Your task to perform on an android device: View the shopping cart on bestbuy. Add "logitech g pro" to the cart on bestbuy Image 0: 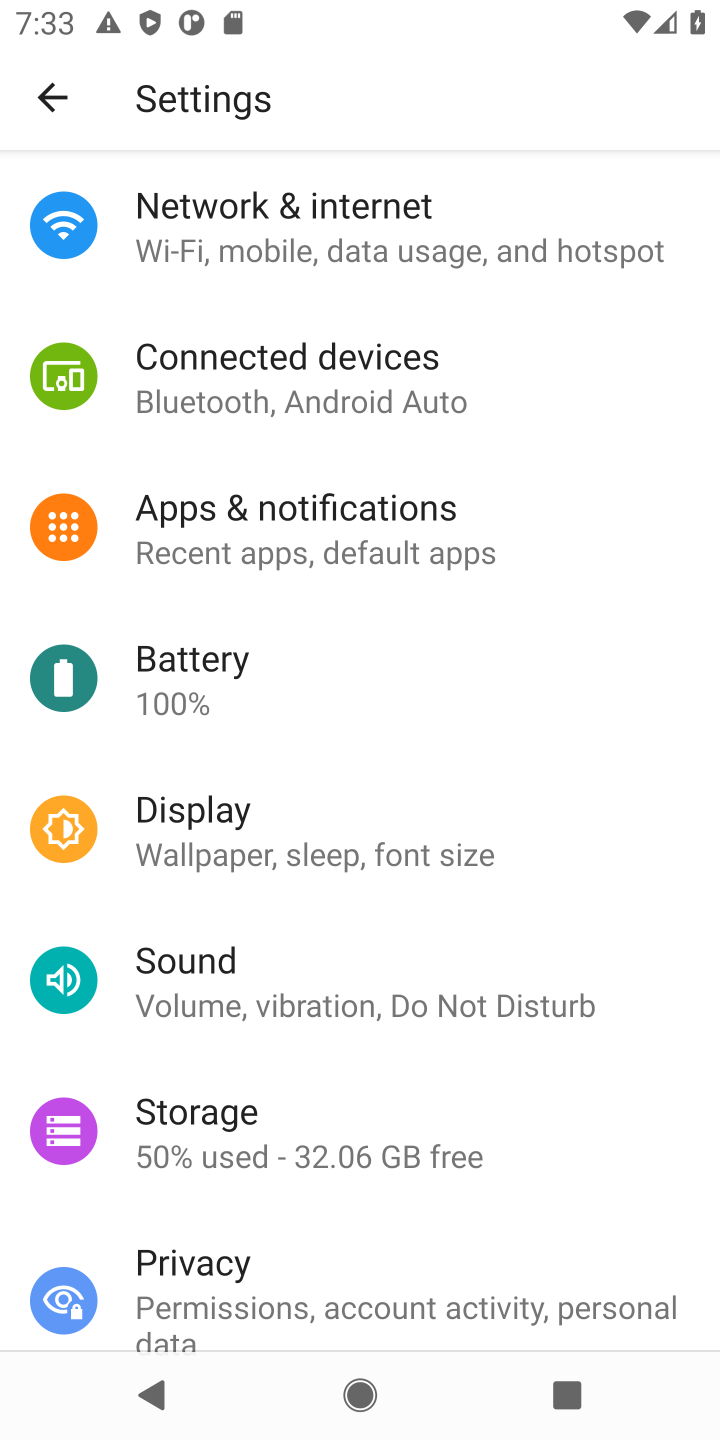
Step 0: press home button
Your task to perform on an android device: View the shopping cart on bestbuy. Add "logitech g pro" to the cart on bestbuy Image 1: 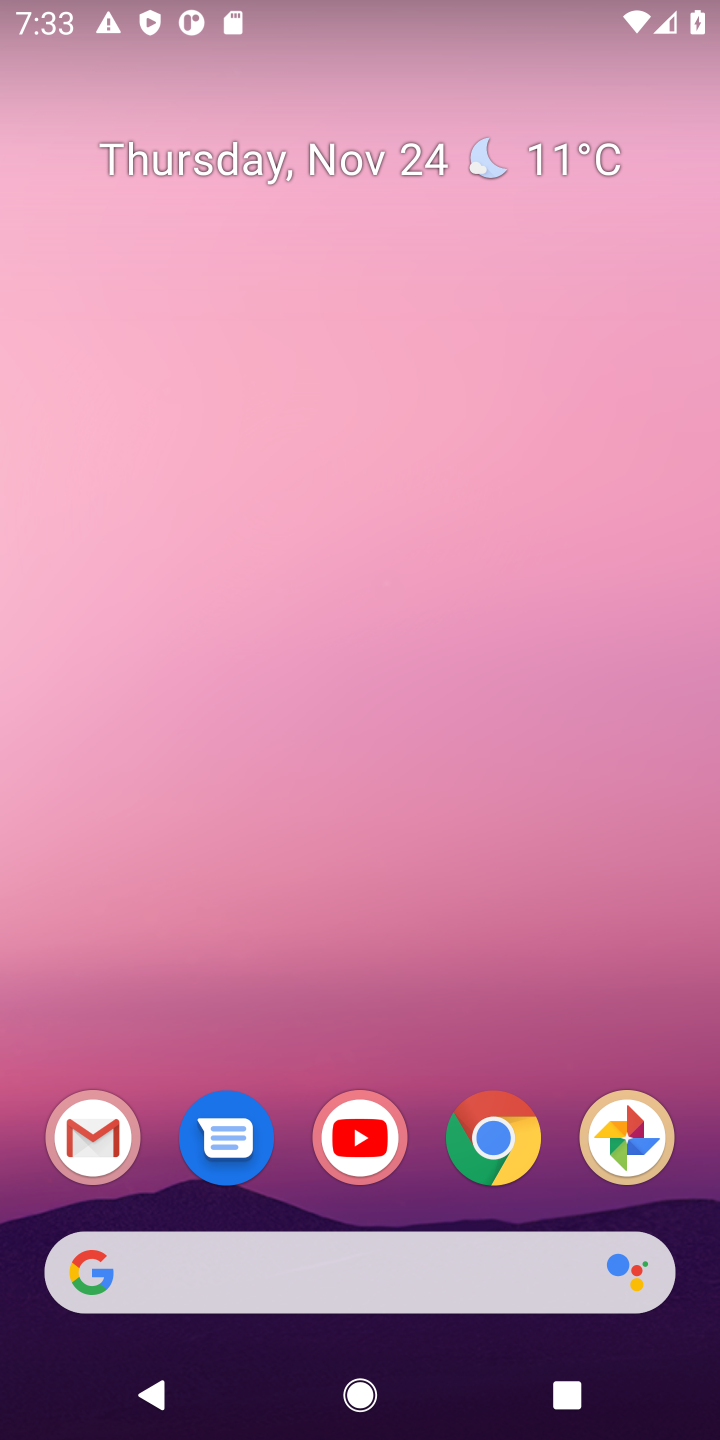
Step 1: click (309, 1252)
Your task to perform on an android device: View the shopping cart on bestbuy. Add "logitech g pro" to the cart on bestbuy Image 2: 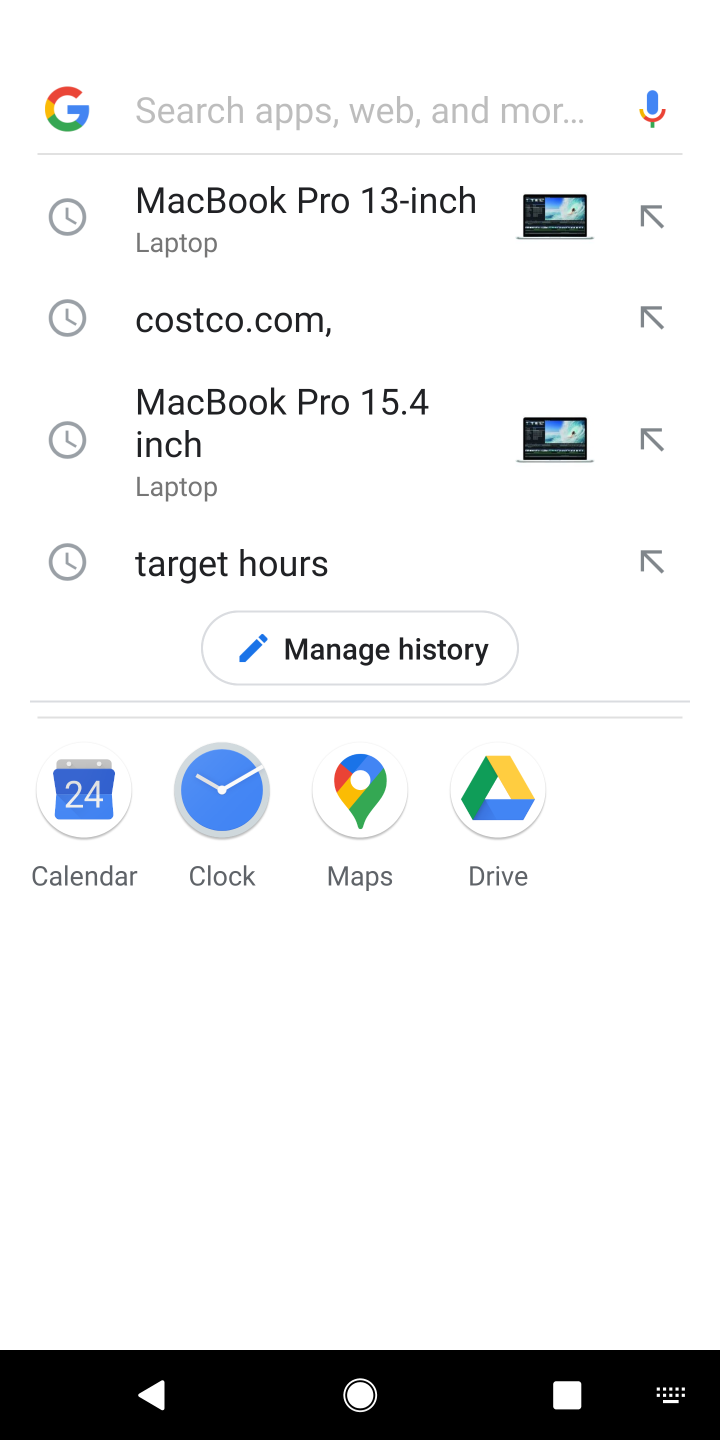
Step 2: type "bestbuy"
Your task to perform on an android device: View the shopping cart on bestbuy. Add "logitech g pro" to the cart on bestbuy Image 3: 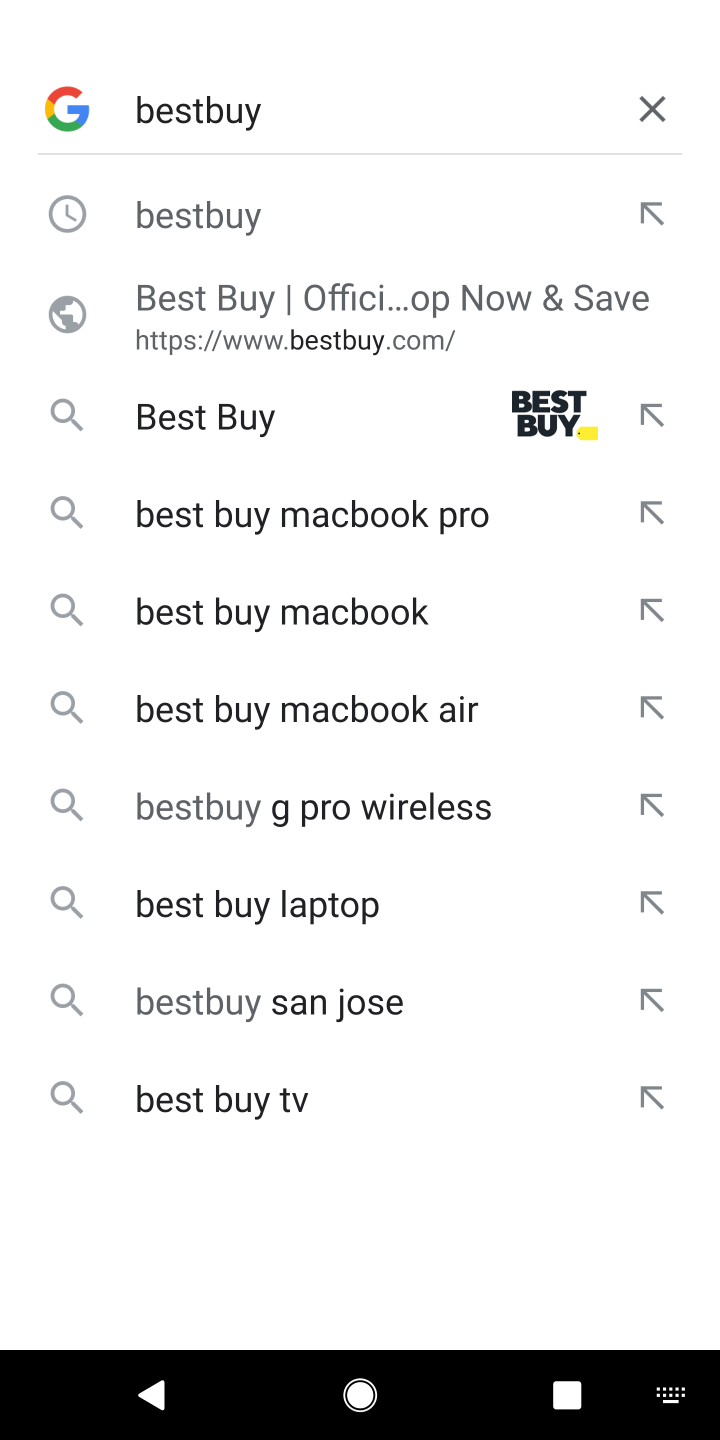
Step 3: click (355, 435)
Your task to perform on an android device: View the shopping cart on bestbuy. Add "logitech g pro" to the cart on bestbuy Image 4: 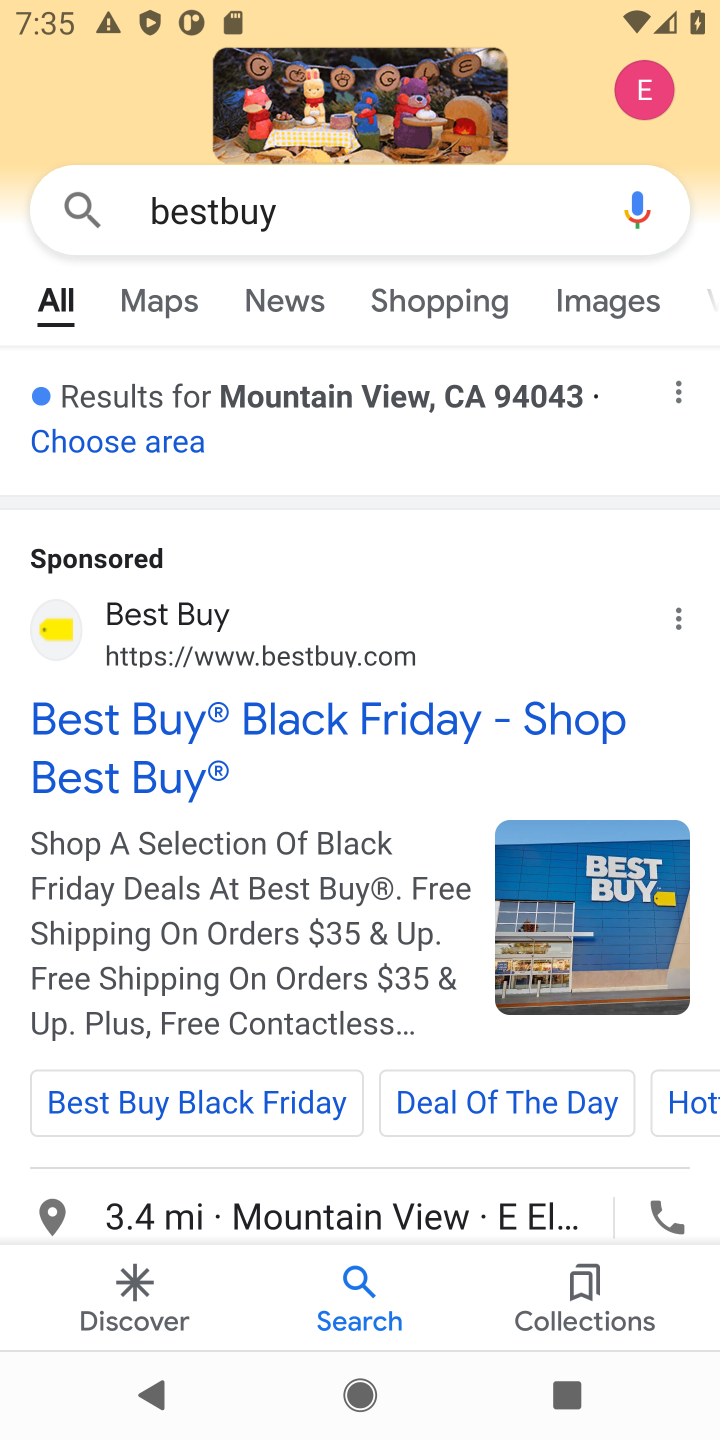
Step 4: click (137, 733)
Your task to perform on an android device: View the shopping cart on bestbuy. Add "logitech g pro" to the cart on bestbuy Image 5: 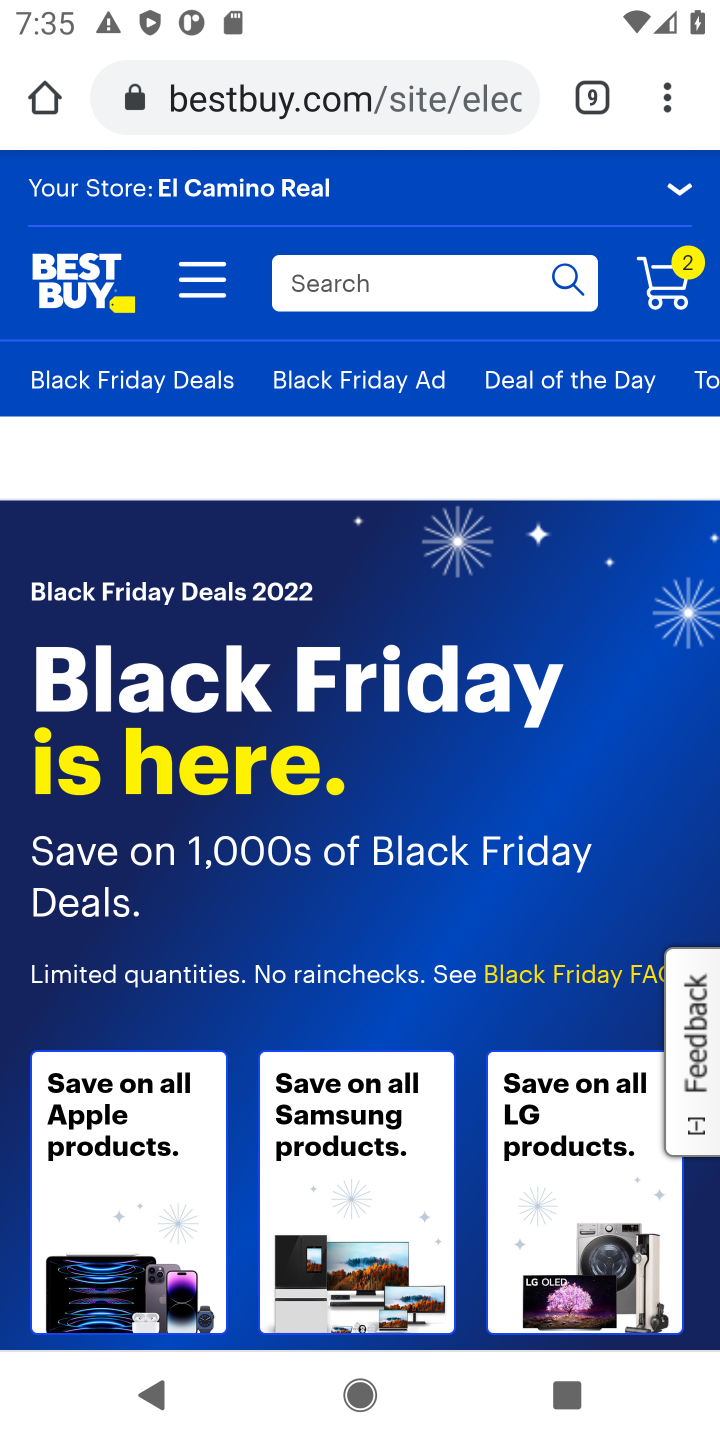
Step 5: click (369, 263)
Your task to perform on an android device: View the shopping cart on bestbuy. Add "logitech g pro" to the cart on bestbuy Image 6: 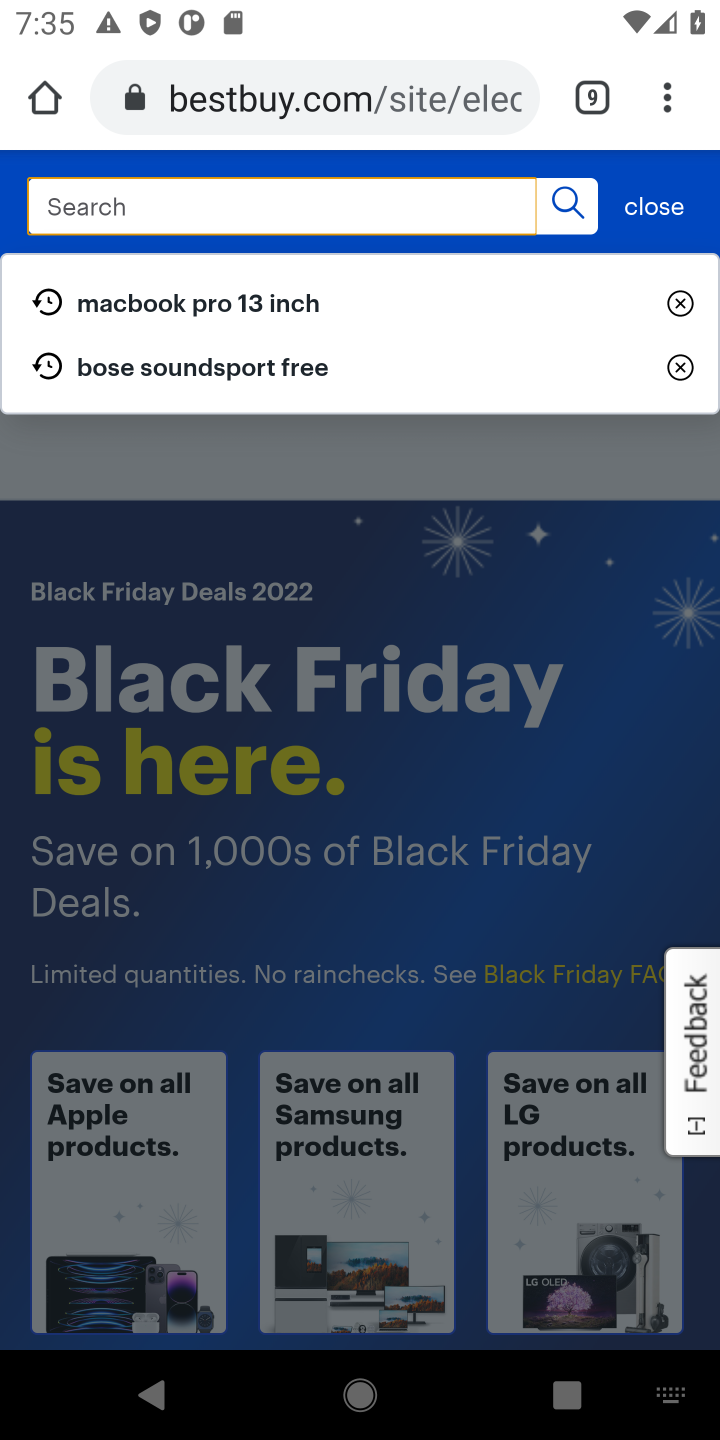
Step 6: type "logitech g pro"
Your task to perform on an android device: View the shopping cart on bestbuy. Add "logitech g pro" to the cart on bestbuy Image 7: 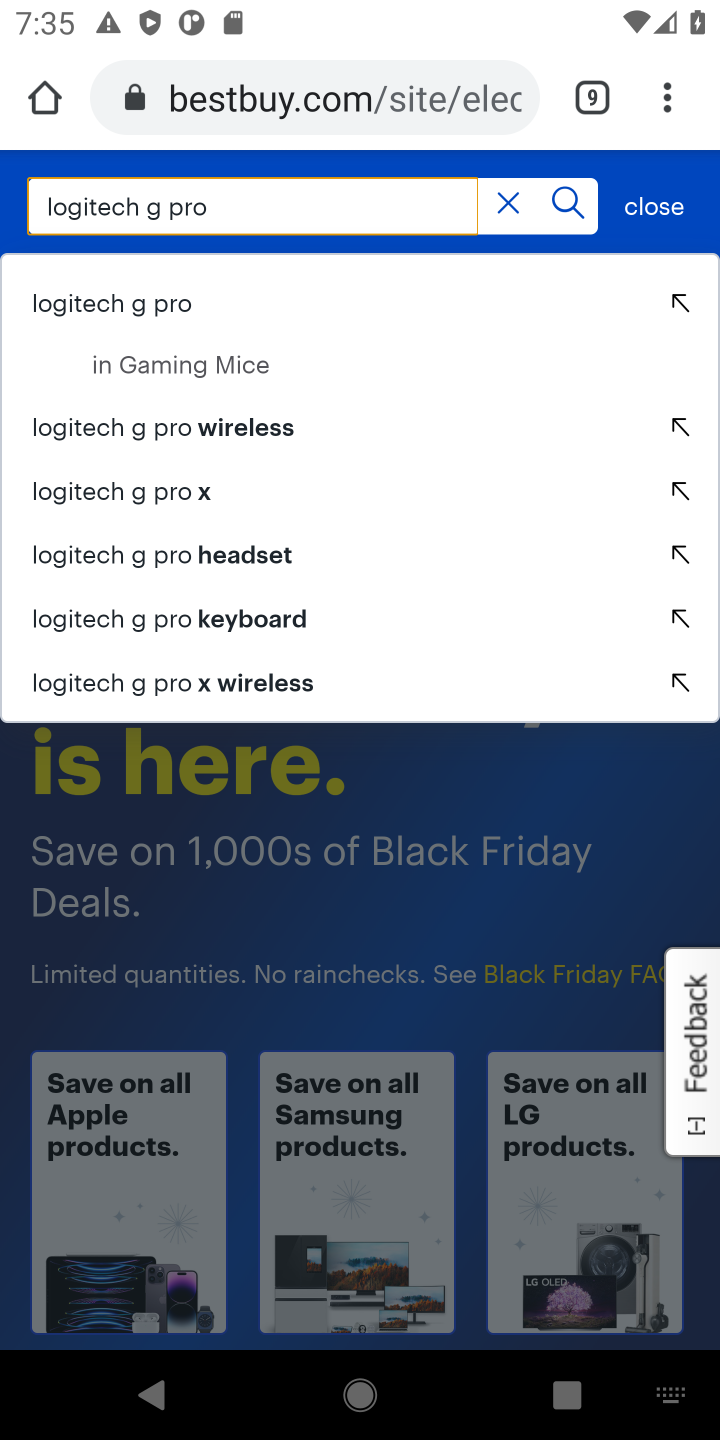
Step 7: click (172, 283)
Your task to perform on an android device: View the shopping cart on bestbuy. Add "logitech g pro" to the cart on bestbuy Image 8: 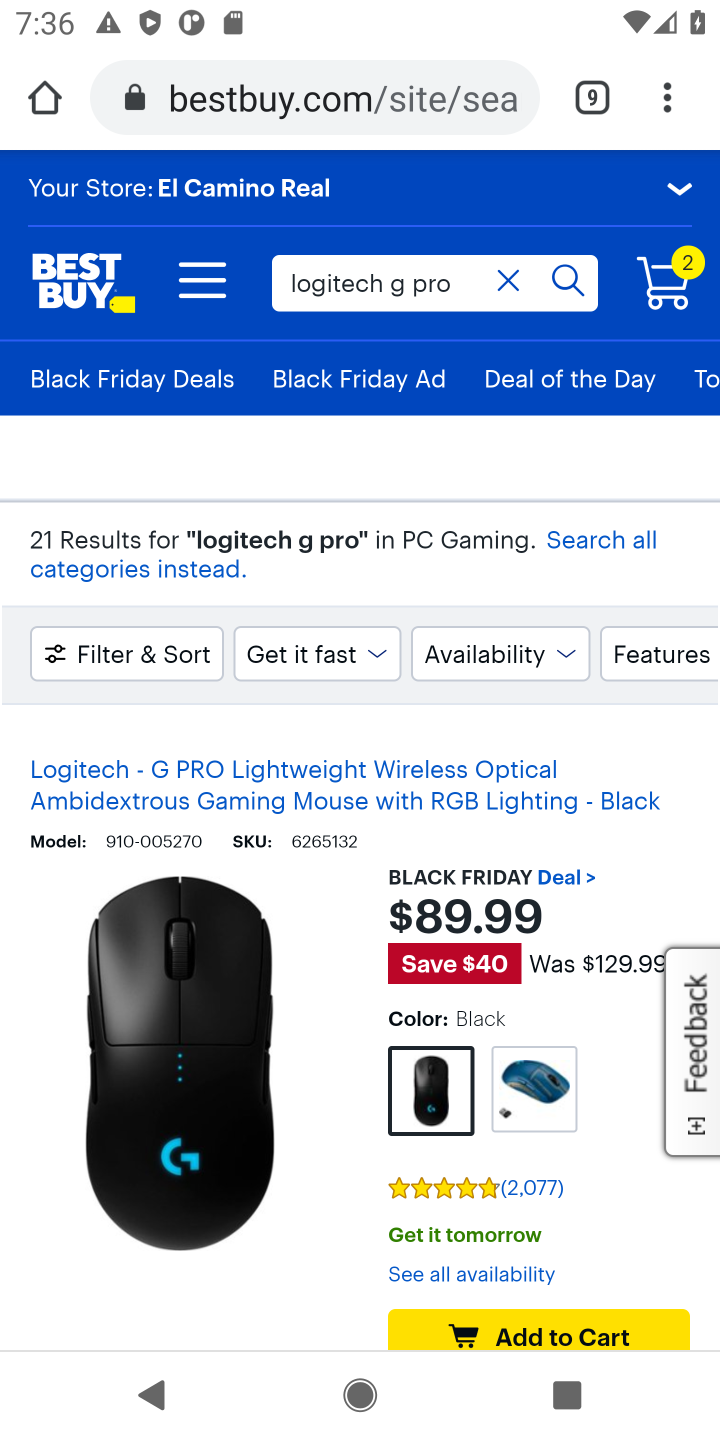
Step 8: click (562, 286)
Your task to perform on an android device: View the shopping cart on bestbuy. Add "logitech g pro" to the cart on bestbuy Image 9: 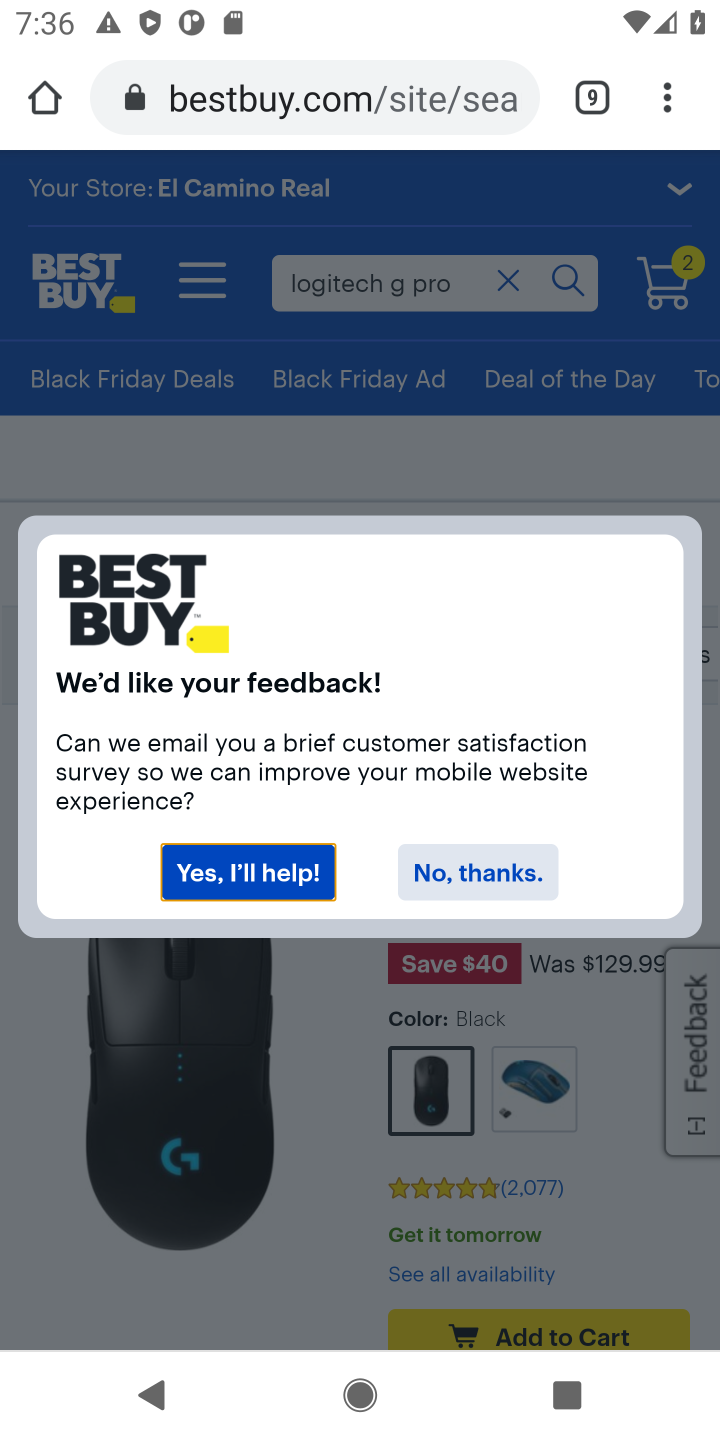
Step 9: click (499, 871)
Your task to perform on an android device: View the shopping cart on bestbuy. Add "logitech g pro" to the cart on bestbuy Image 10: 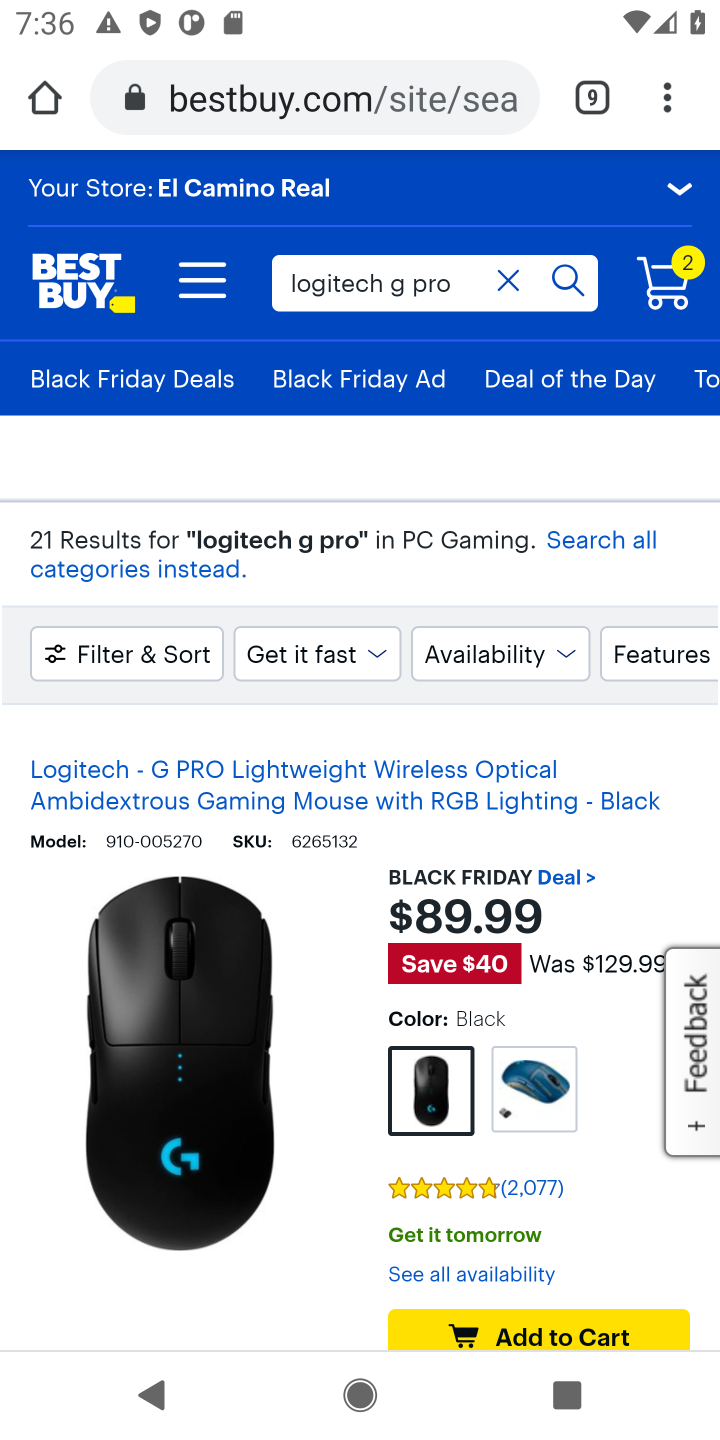
Step 10: click (499, 871)
Your task to perform on an android device: View the shopping cart on bestbuy. Add "logitech g pro" to the cart on bestbuy Image 11: 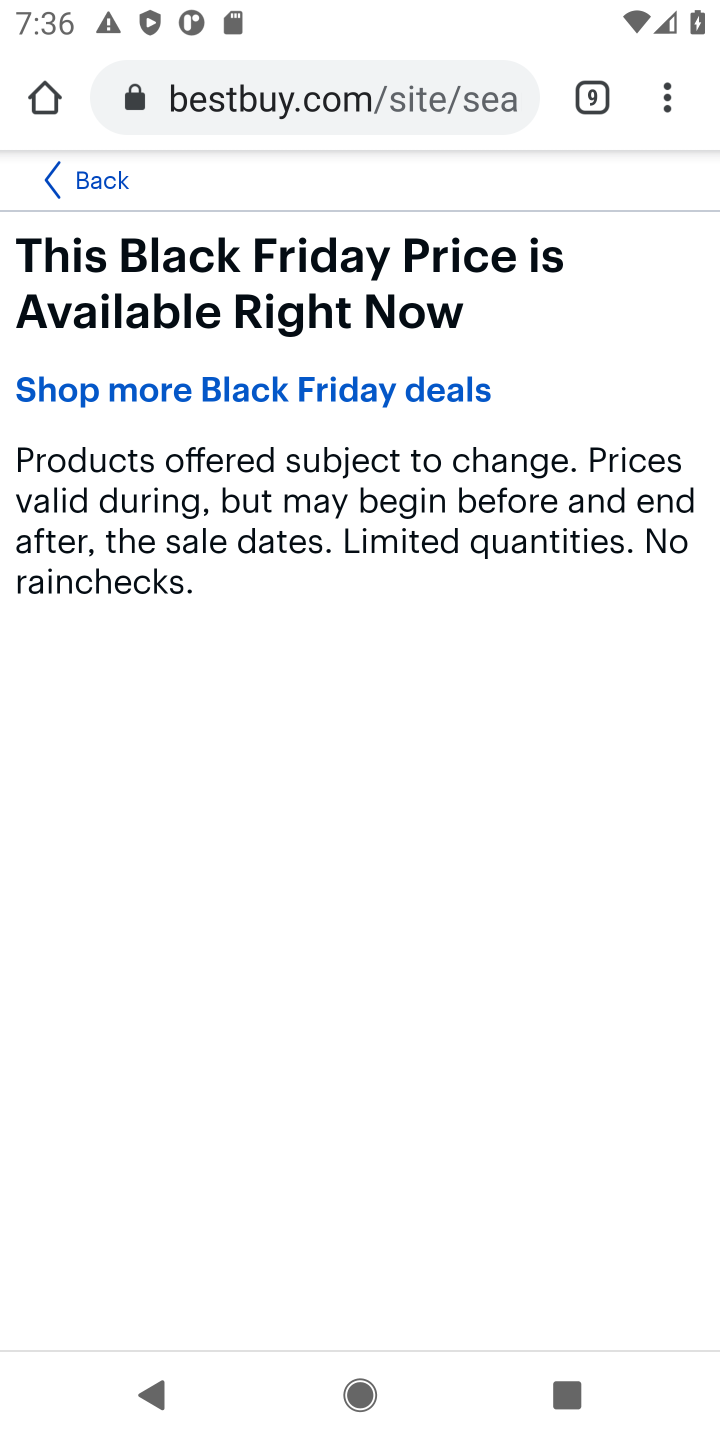
Step 11: click (79, 174)
Your task to perform on an android device: View the shopping cart on bestbuy. Add "logitech g pro" to the cart on bestbuy Image 12: 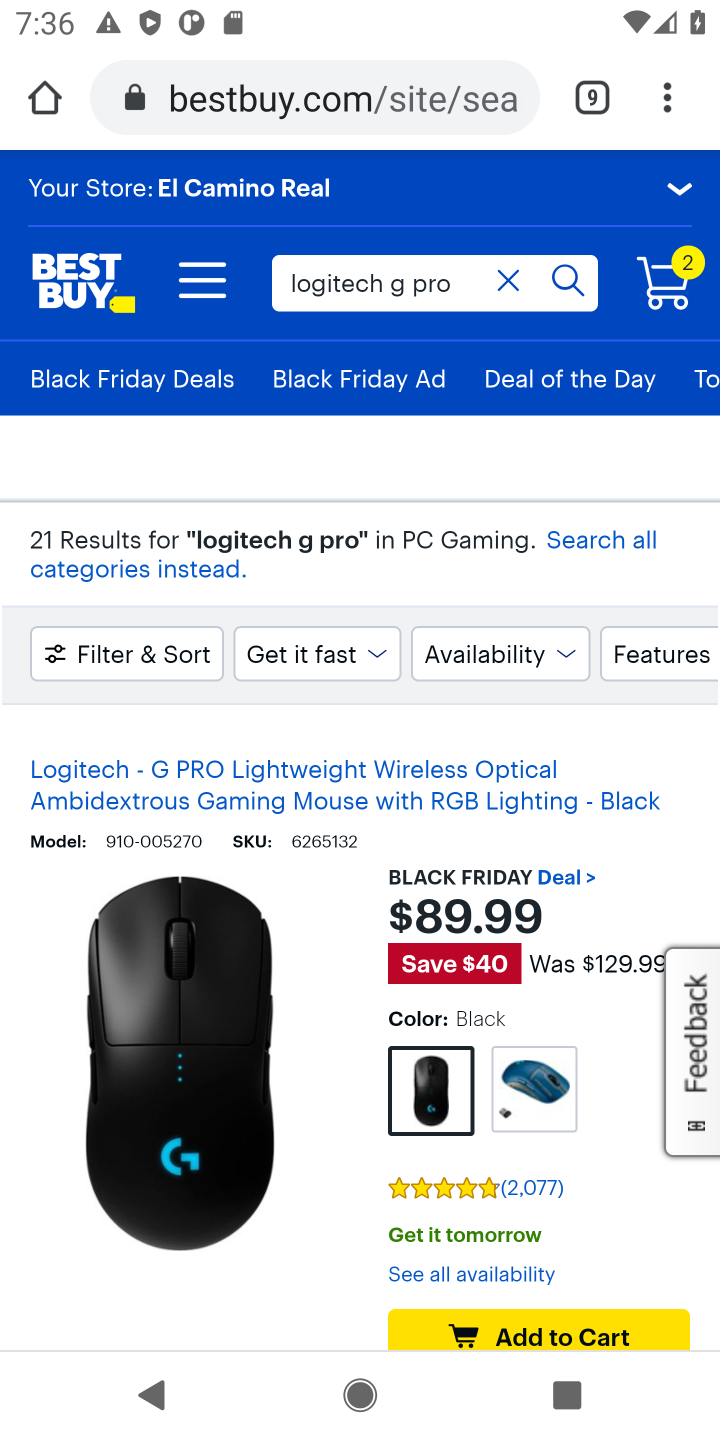
Step 12: click (531, 1318)
Your task to perform on an android device: View the shopping cart on bestbuy. Add "logitech g pro" to the cart on bestbuy Image 13: 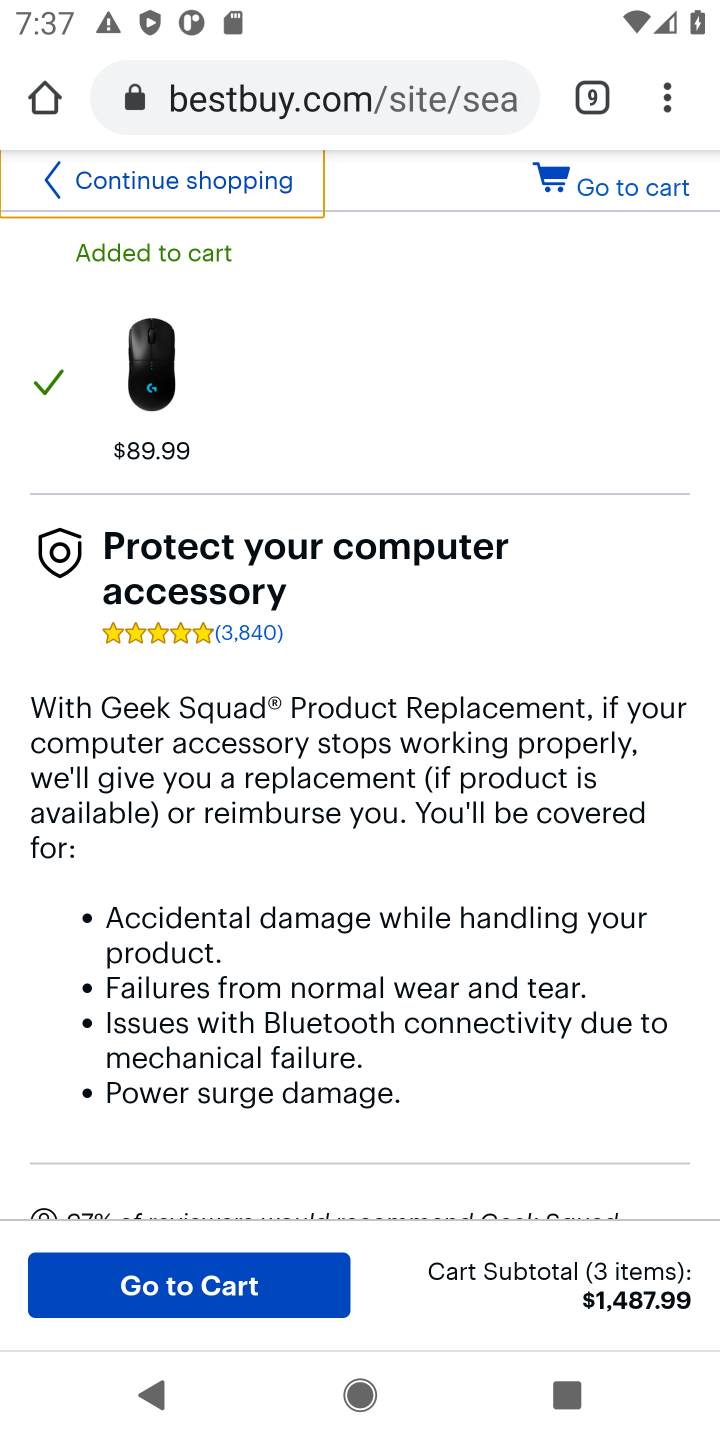
Step 13: click (160, 1270)
Your task to perform on an android device: View the shopping cart on bestbuy. Add "logitech g pro" to the cart on bestbuy Image 14: 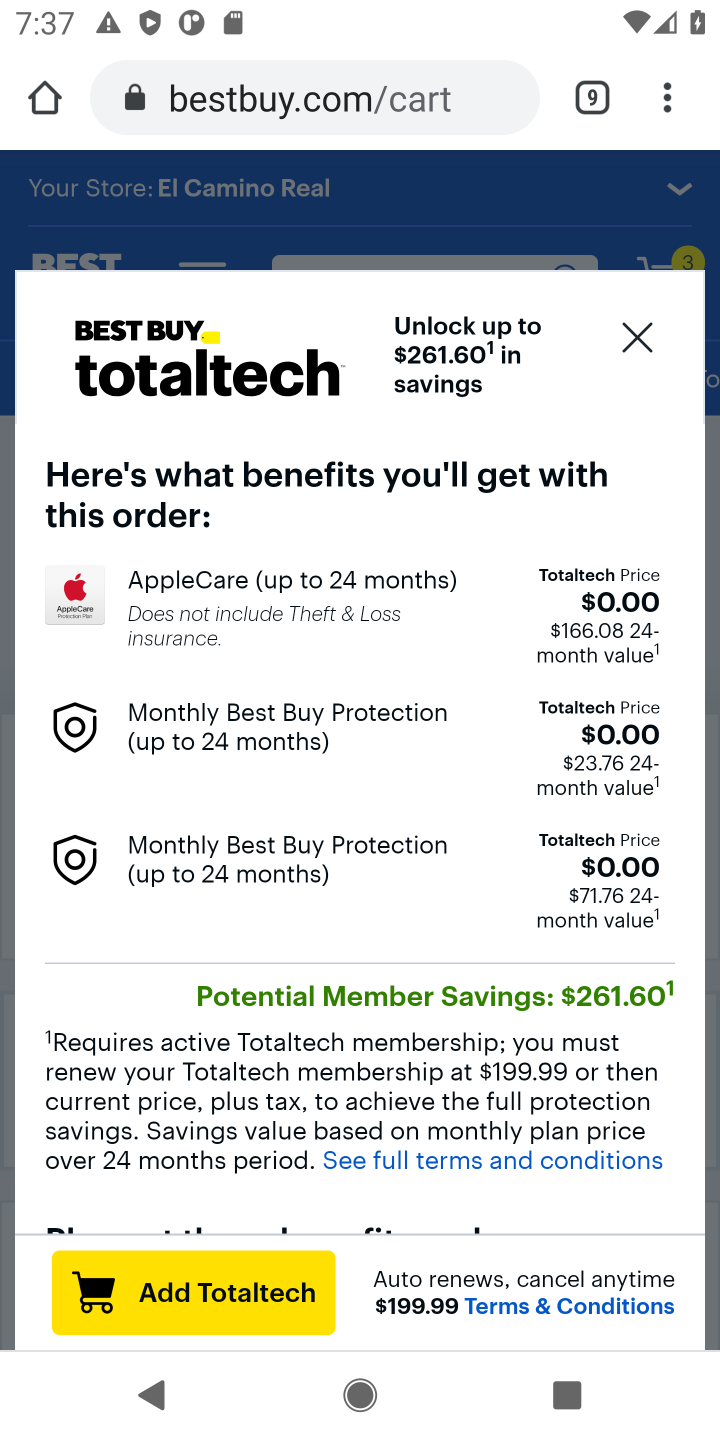
Step 14: task complete